Your task to perform on an android device: Go to privacy settings Image 0: 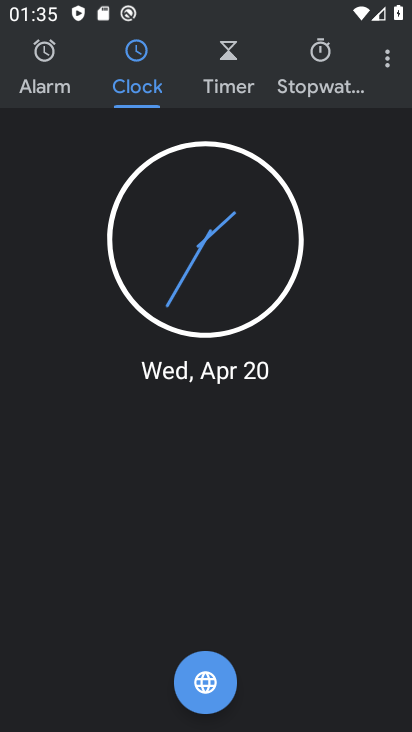
Step 0: press home button
Your task to perform on an android device: Go to privacy settings Image 1: 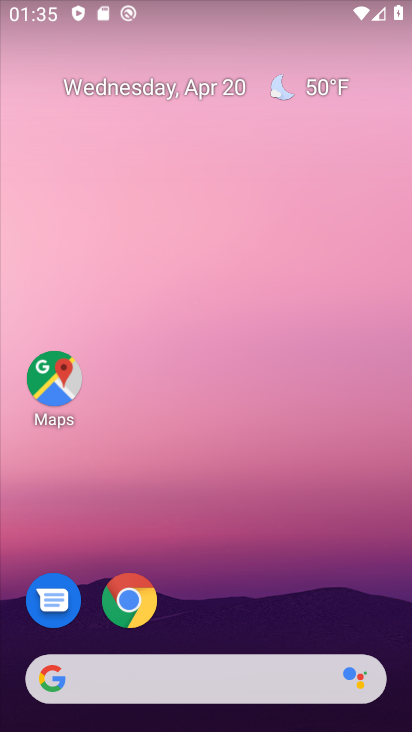
Step 1: click (134, 590)
Your task to perform on an android device: Go to privacy settings Image 2: 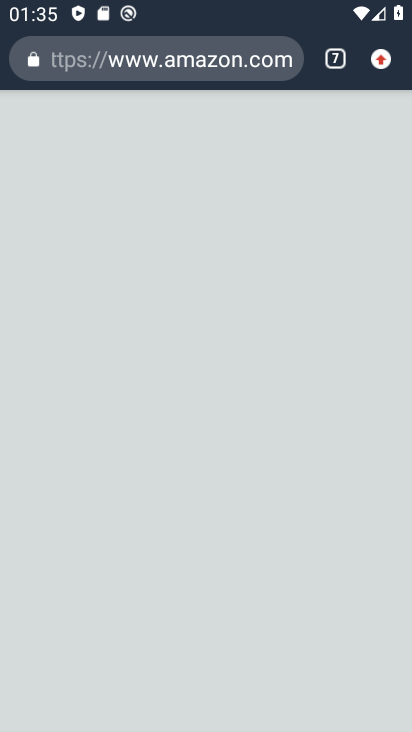
Step 2: click (375, 57)
Your task to perform on an android device: Go to privacy settings Image 3: 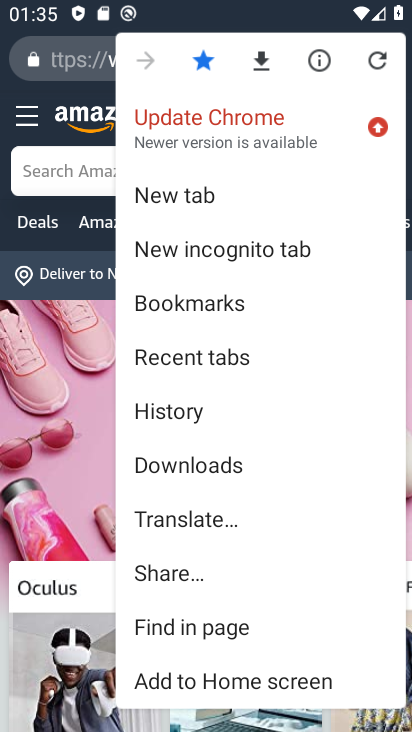
Step 3: drag from (237, 511) to (234, 65)
Your task to perform on an android device: Go to privacy settings Image 4: 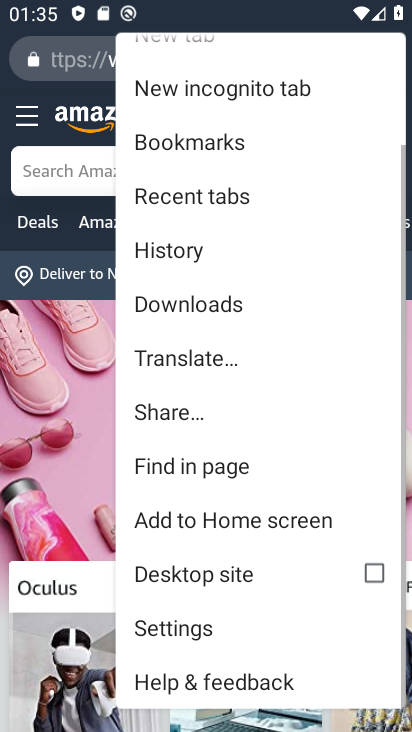
Step 4: click (206, 640)
Your task to perform on an android device: Go to privacy settings Image 5: 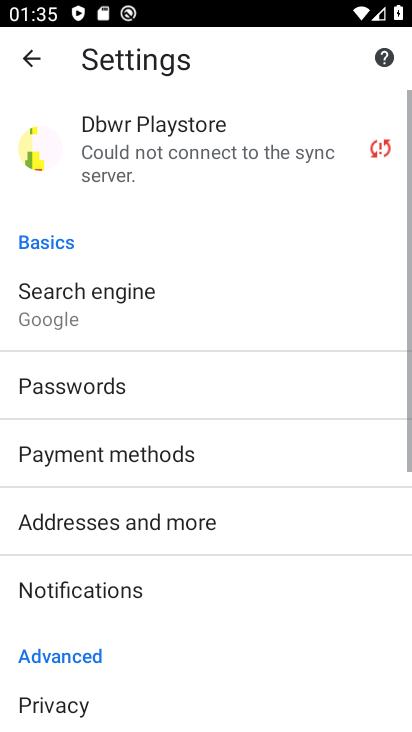
Step 5: drag from (206, 640) to (148, 158)
Your task to perform on an android device: Go to privacy settings Image 6: 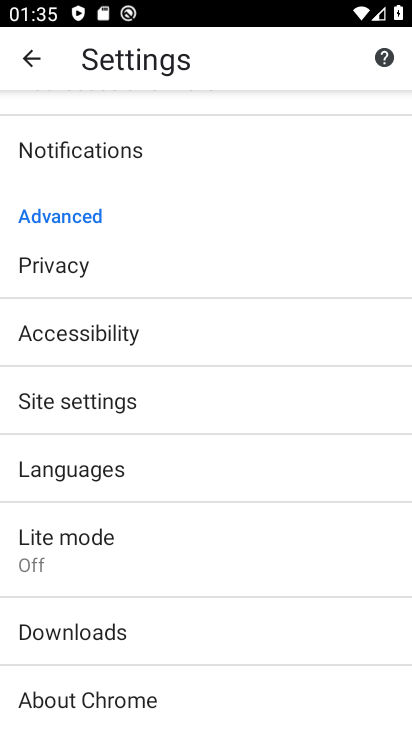
Step 6: click (116, 275)
Your task to perform on an android device: Go to privacy settings Image 7: 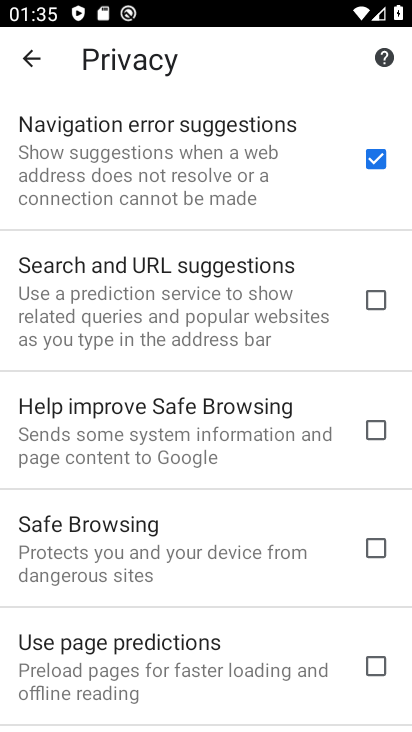
Step 7: task complete